Your task to perform on an android device: turn off smart reply in the gmail app Image 0: 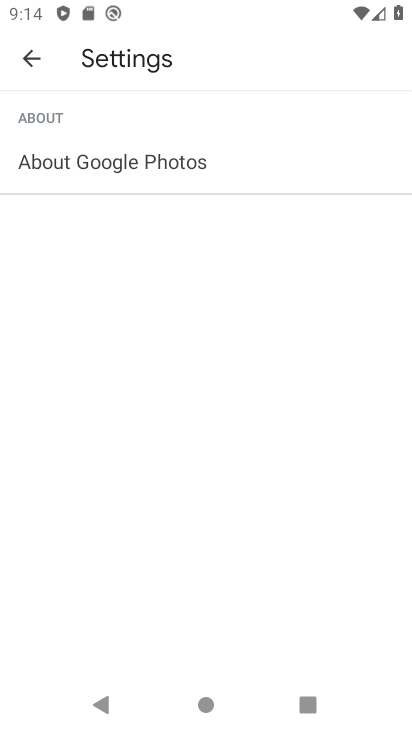
Step 0: press home button
Your task to perform on an android device: turn off smart reply in the gmail app Image 1: 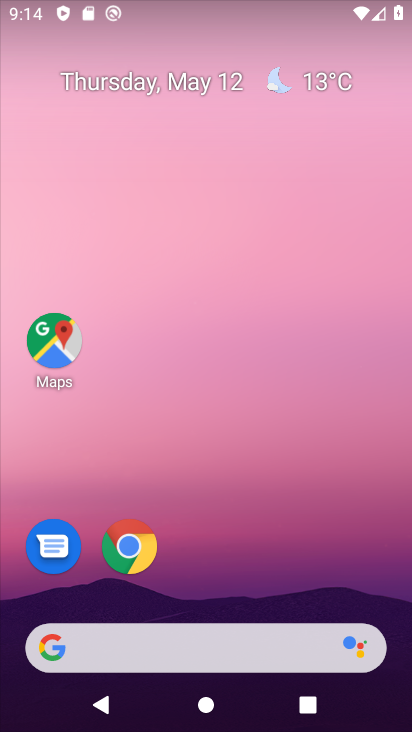
Step 1: drag from (131, 617) to (230, 174)
Your task to perform on an android device: turn off smart reply in the gmail app Image 2: 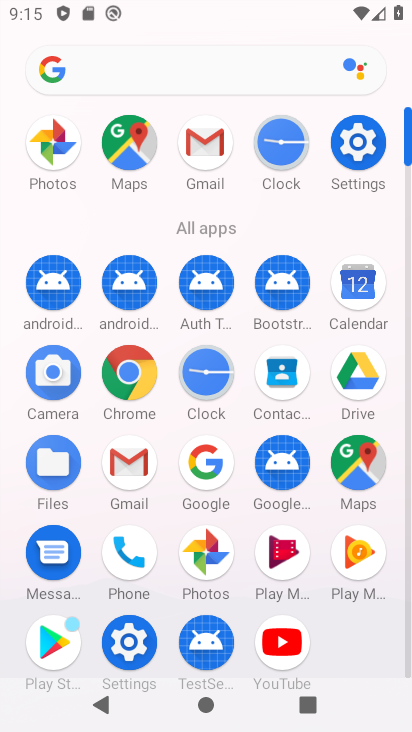
Step 2: click (127, 480)
Your task to perform on an android device: turn off smart reply in the gmail app Image 3: 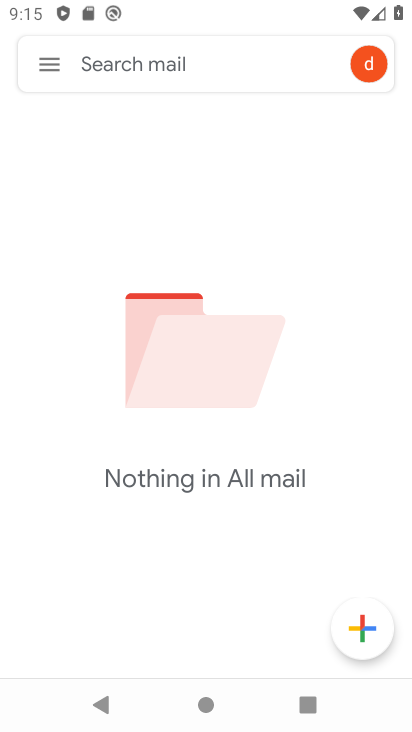
Step 3: click (44, 70)
Your task to perform on an android device: turn off smart reply in the gmail app Image 4: 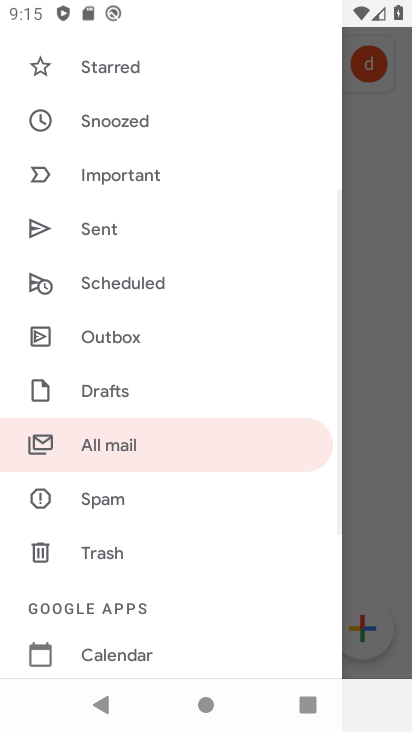
Step 4: drag from (169, 563) to (255, 301)
Your task to perform on an android device: turn off smart reply in the gmail app Image 5: 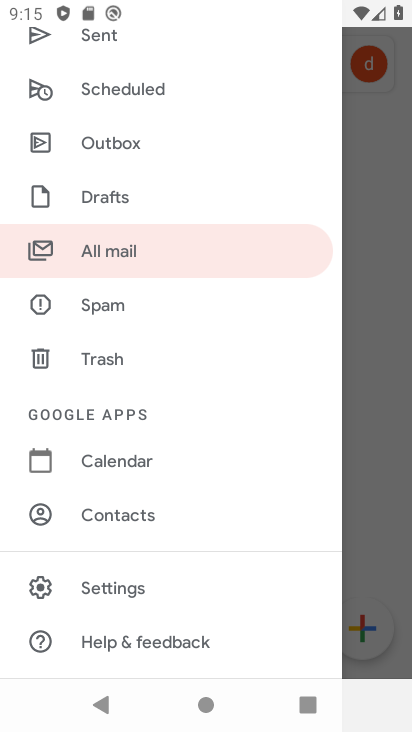
Step 5: click (133, 596)
Your task to perform on an android device: turn off smart reply in the gmail app Image 6: 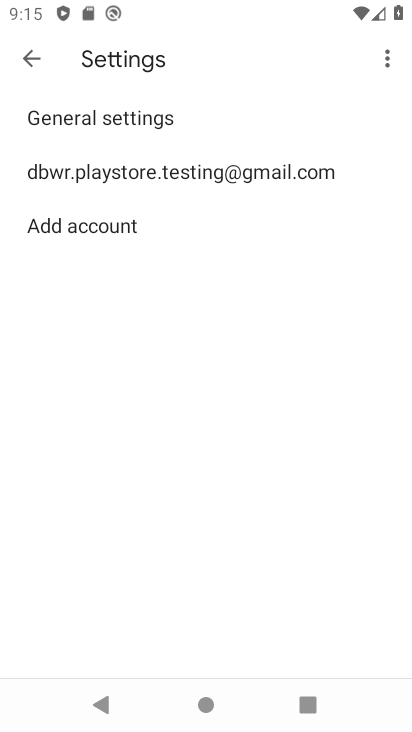
Step 6: click (249, 180)
Your task to perform on an android device: turn off smart reply in the gmail app Image 7: 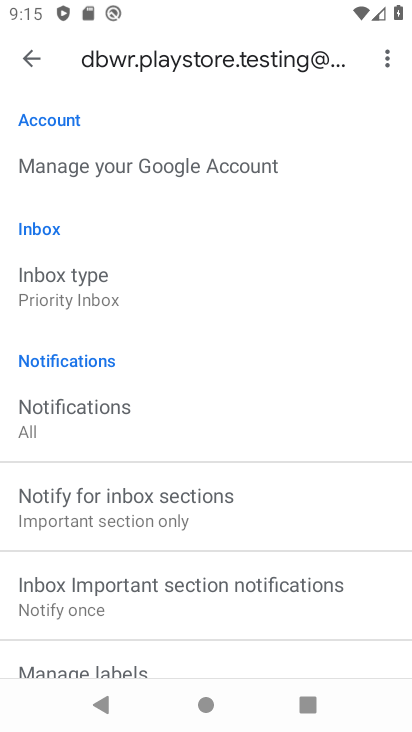
Step 7: drag from (175, 536) to (320, 78)
Your task to perform on an android device: turn off smart reply in the gmail app Image 8: 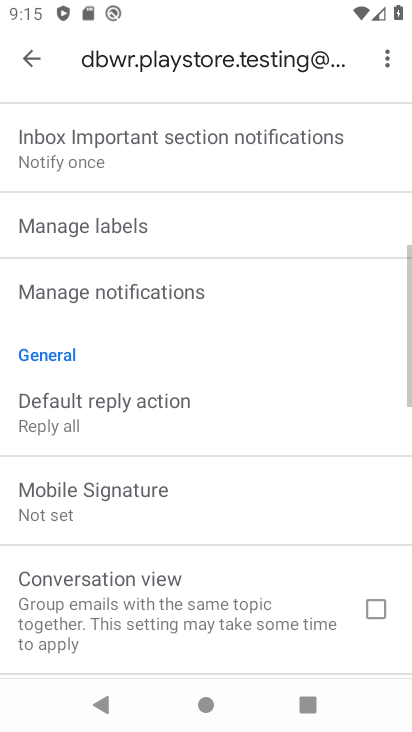
Step 8: drag from (202, 578) to (306, 259)
Your task to perform on an android device: turn off smart reply in the gmail app Image 9: 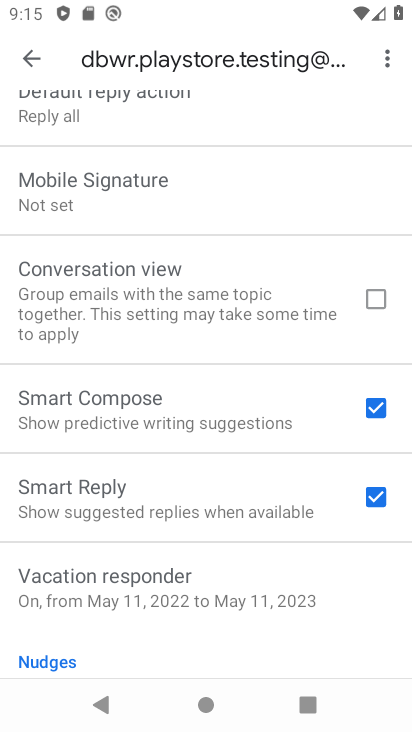
Step 9: click (369, 412)
Your task to perform on an android device: turn off smart reply in the gmail app Image 10: 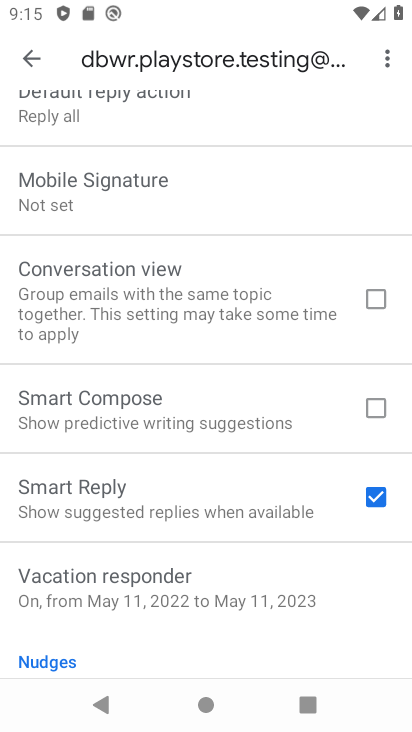
Step 10: task complete